Your task to perform on an android device: open a new tab in the chrome app Image 0: 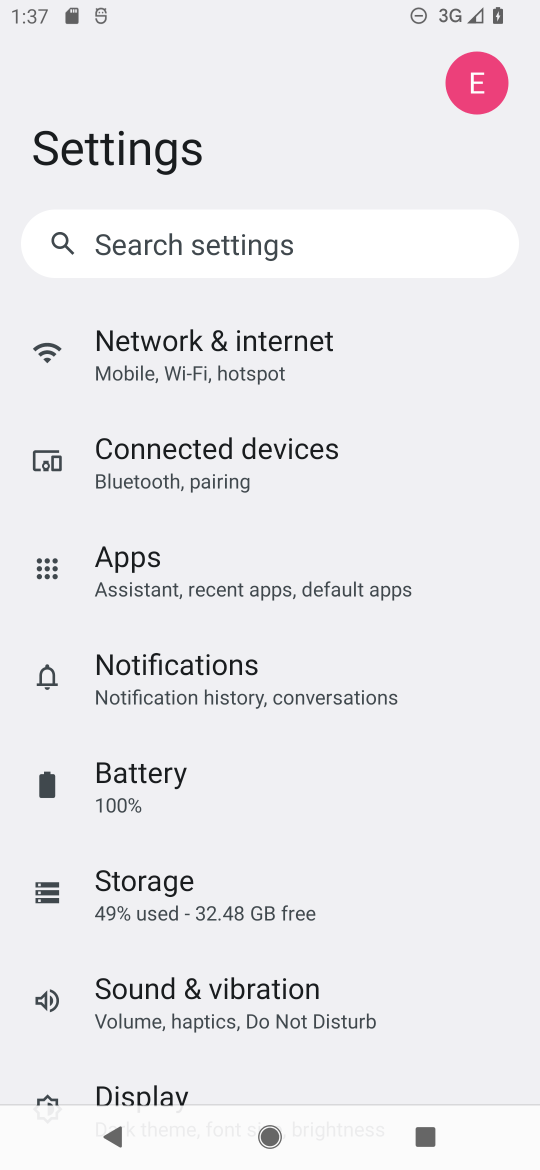
Step 0: press home button
Your task to perform on an android device: open a new tab in the chrome app Image 1: 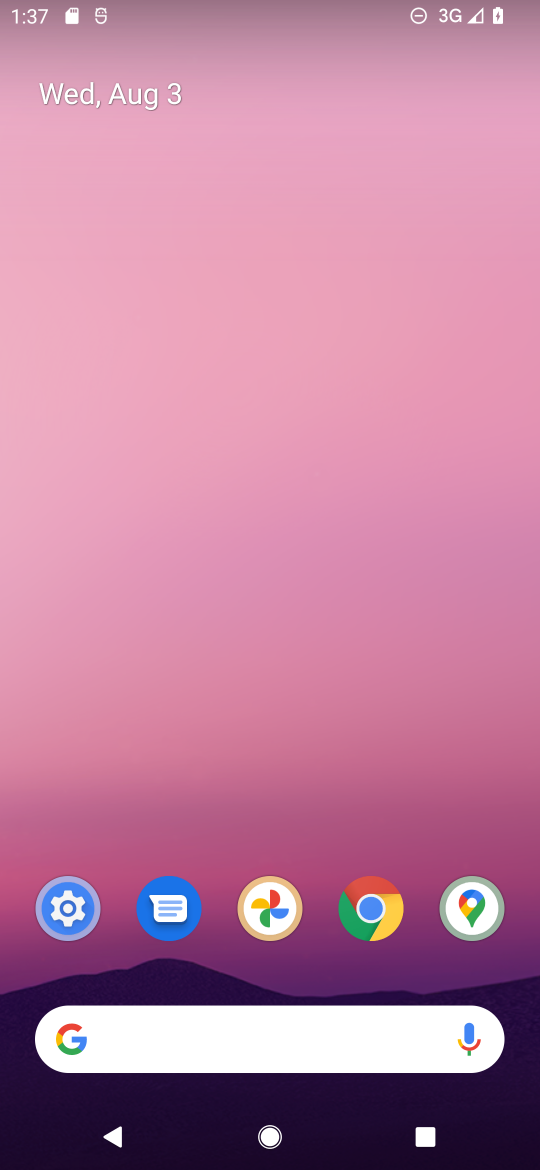
Step 1: click (361, 911)
Your task to perform on an android device: open a new tab in the chrome app Image 2: 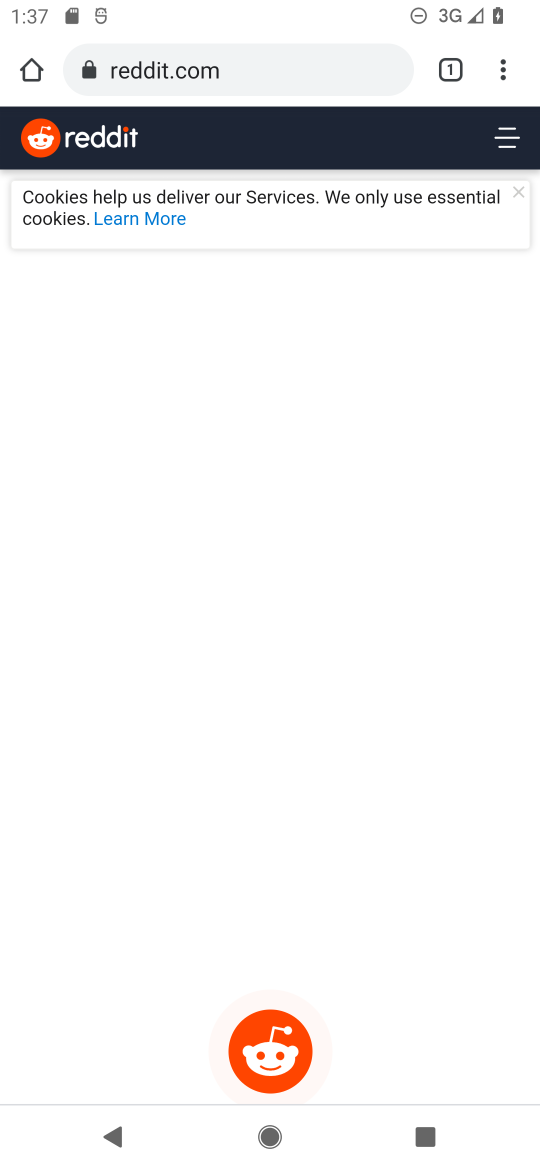
Step 2: click (447, 79)
Your task to perform on an android device: open a new tab in the chrome app Image 3: 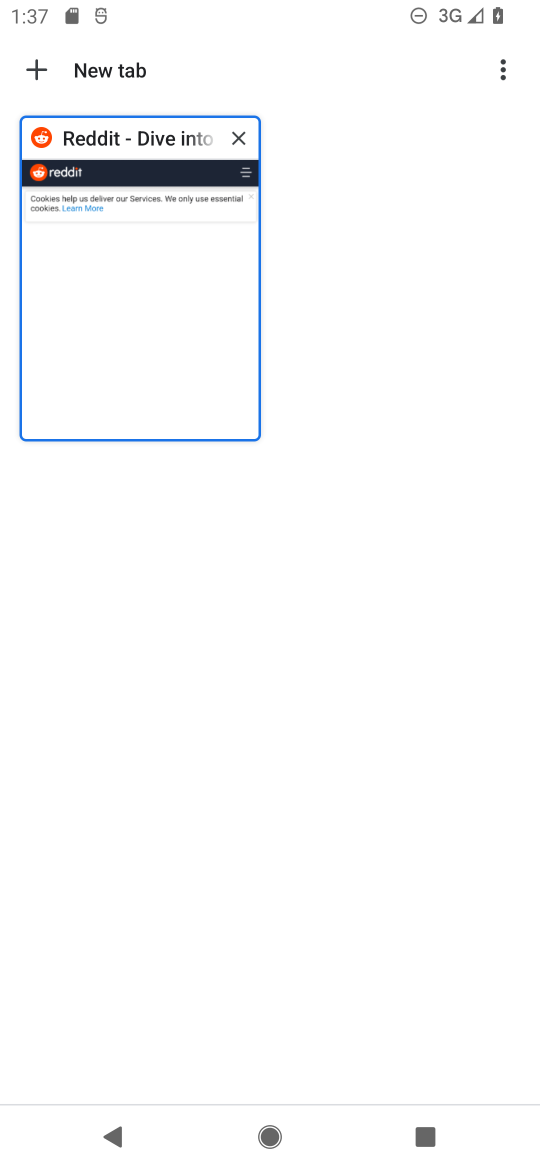
Step 3: click (33, 60)
Your task to perform on an android device: open a new tab in the chrome app Image 4: 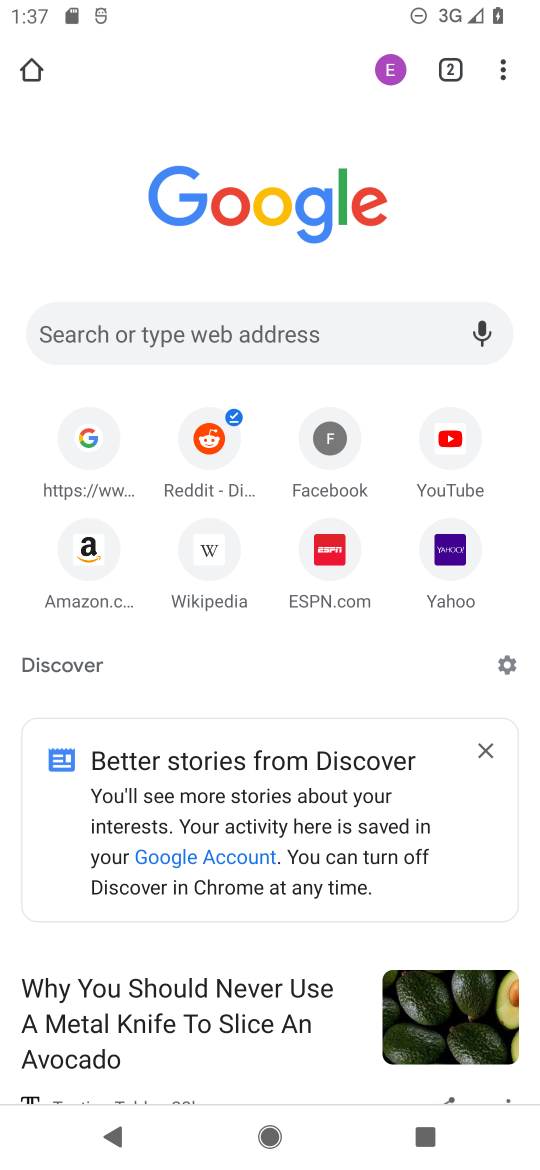
Step 4: task complete